Your task to perform on an android device: Open sound settings Image 0: 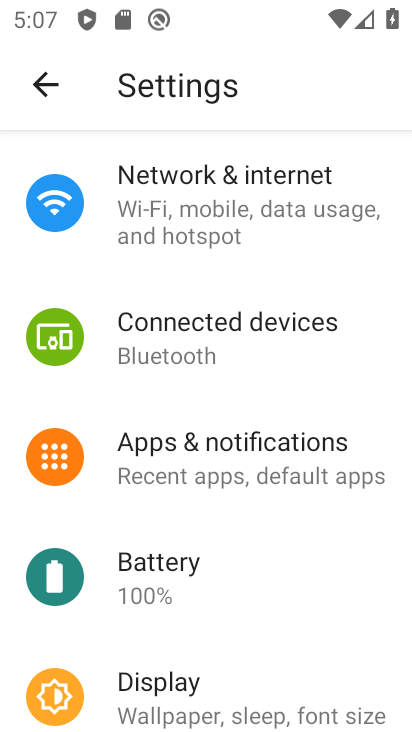
Step 0: press home button
Your task to perform on an android device: Open sound settings Image 1: 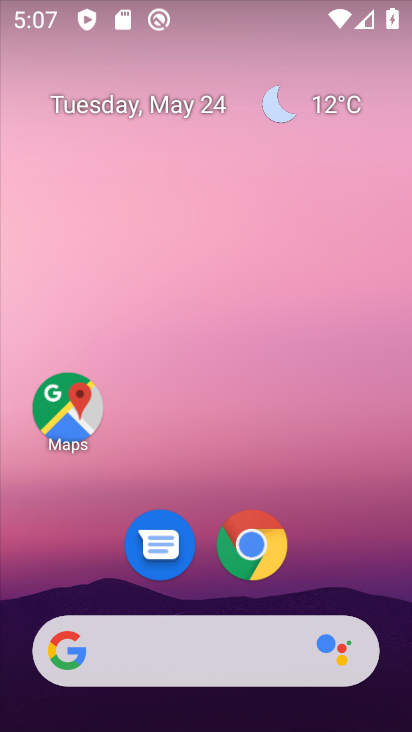
Step 1: drag from (202, 580) to (195, 247)
Your task to perform on an android device: Open sound settings Image 2: 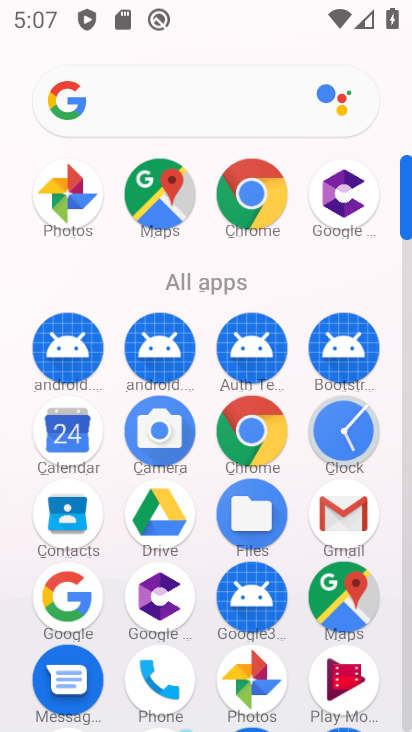
Step 2: drag from (107, 637) to (115, 288)
Your task to perform on an android device: Open sound settings Image 3: 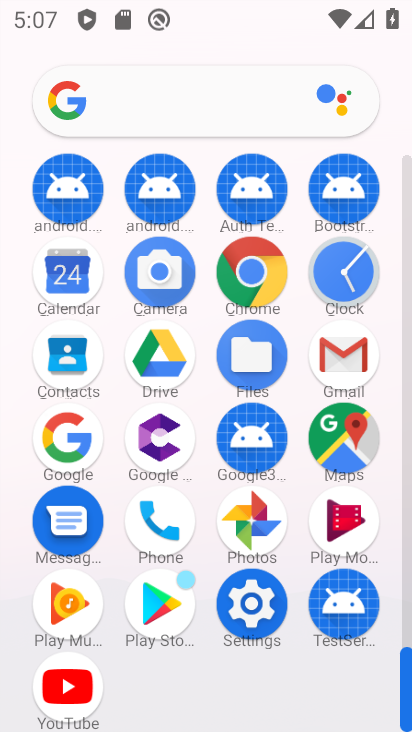
Step 3: click (249, 613)
Your task to perform on an android device: Open sound settings Image 4: 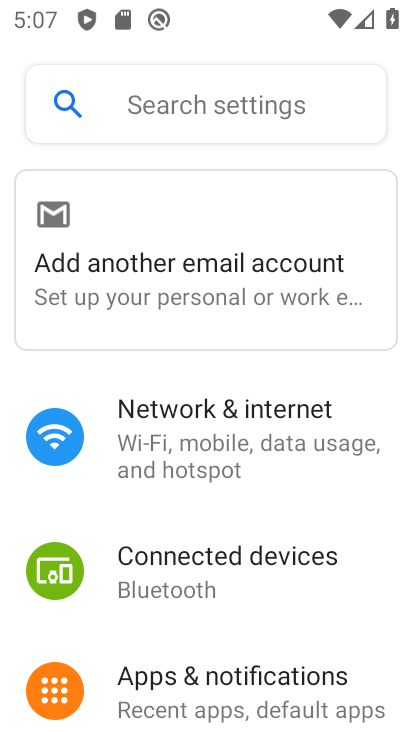
Step 4: drag from (201, 708) to (226, 222)
Your task to perform on an android device: Open sound settings Image 5: 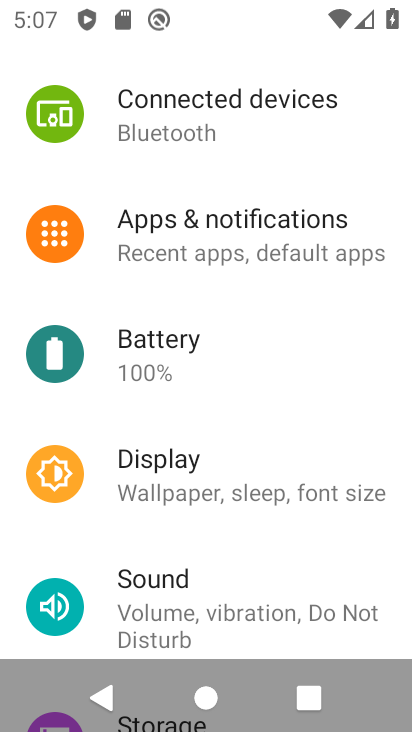
Step 5: click (186, 603)
Your task to perform on an android device: Open sound settings Image 6: 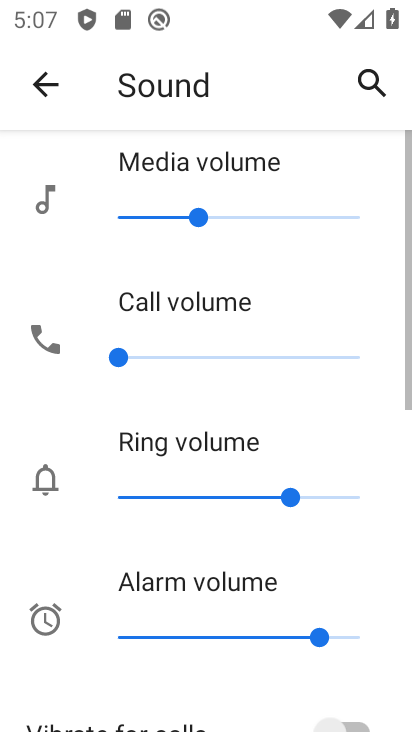
Step 6: task complete